Your task to perform on an android device: choose inbox layout in the gmail app Image 0: 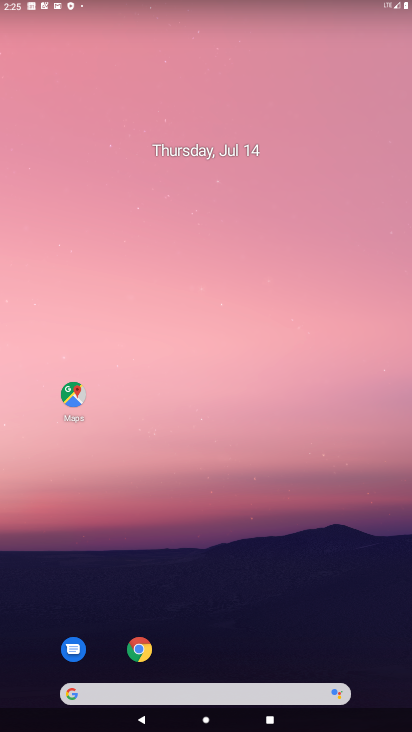
Step 0: drag from (382, 702) to (238, 4)
Your task to perform on an android device: choose inbox layout in the gmail app Image 1: 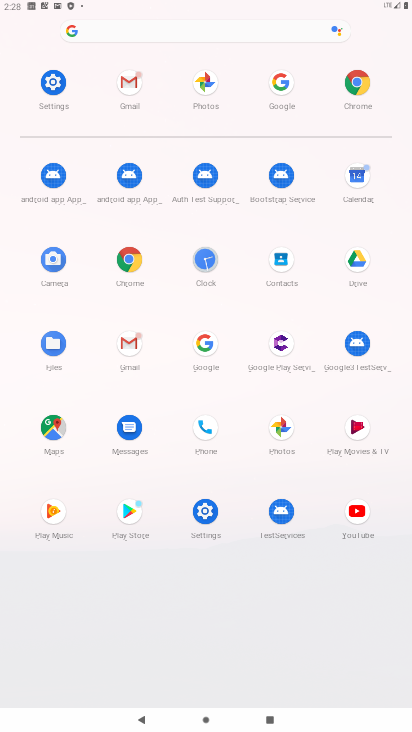
Step 1: click (137, 338)
Your task to perform on an android device: choose inbox layout in the gmail app Image 2: 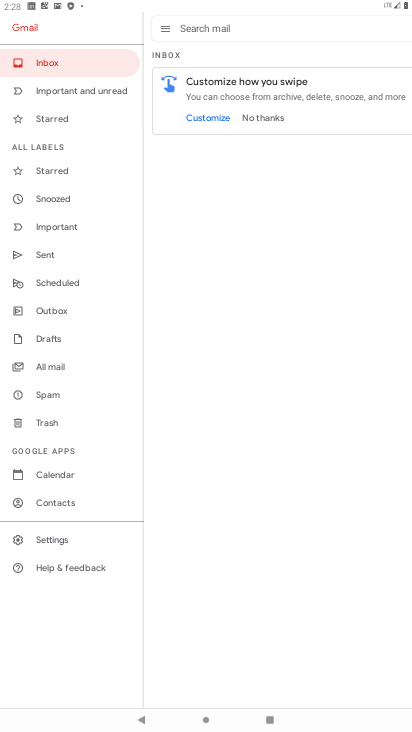
Step 2: task complete